Your task to perform on an android device: Go to Yahoo.com Image 0: 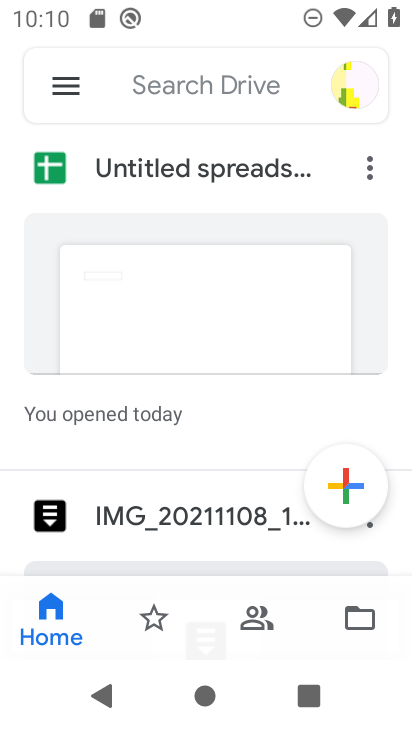
Step 0: press home button
Your task to perform on an android device: Go to Yahoo.com Image 1: 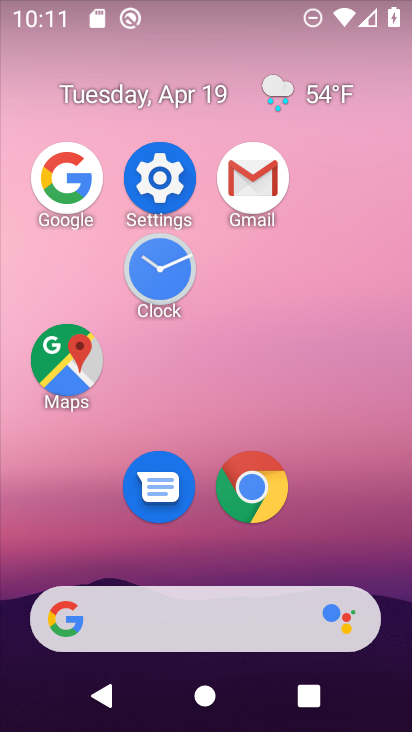
Step 1: click (252, 506)
Your task to perform on an android device: Go to Yahoo.com Image 2: 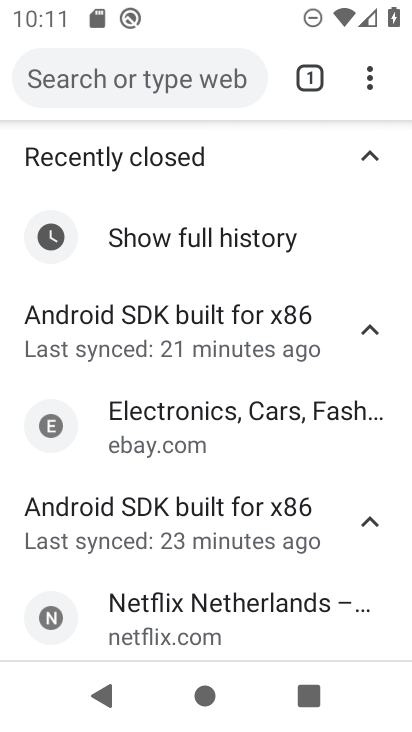
Step 2: click (313, 67)
Your task to perform on an android device: Go to Yahoo.com Image 3: 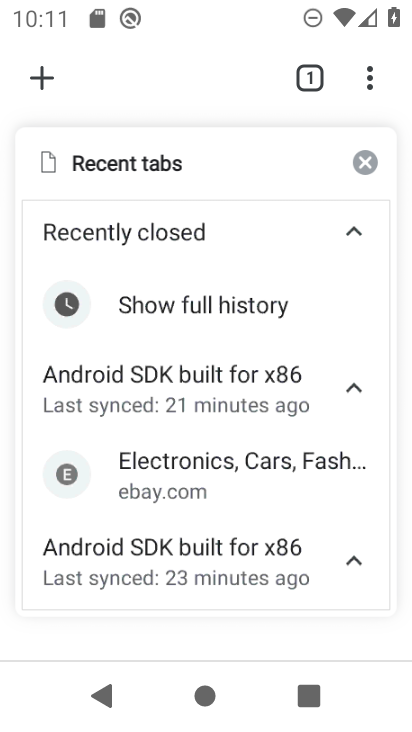
Step 3: click (52, 86)
Your task to perform on an android device: Go to Yahoo.com Image 4: 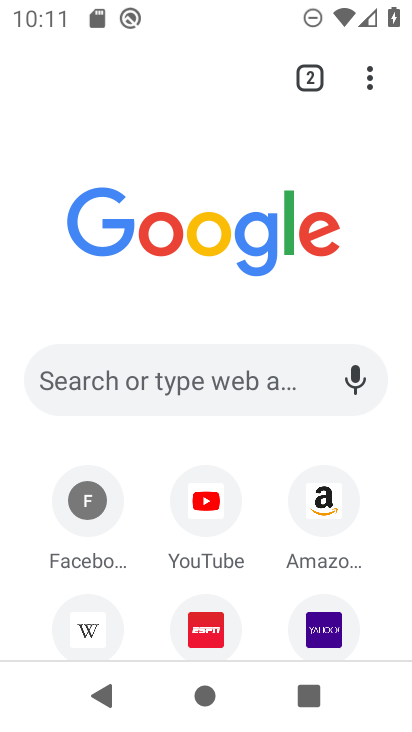
Step 4: click (329, 615)
Your task to perform on an android device: Go to Yahoo.com Image 5: 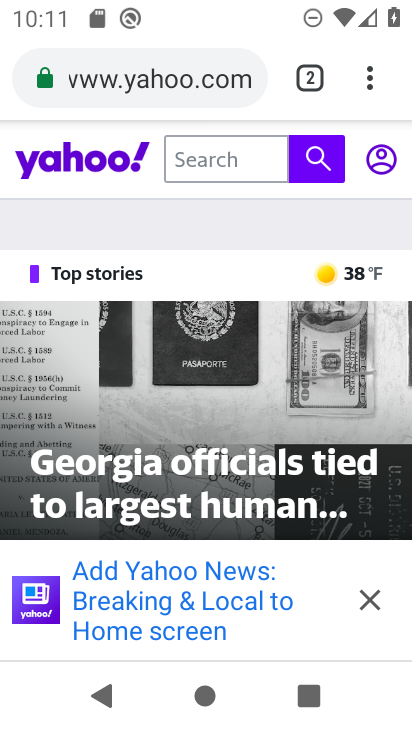
Step 5: task complete